Your task to perform on an android device: Go to accessibility settings Image 0: 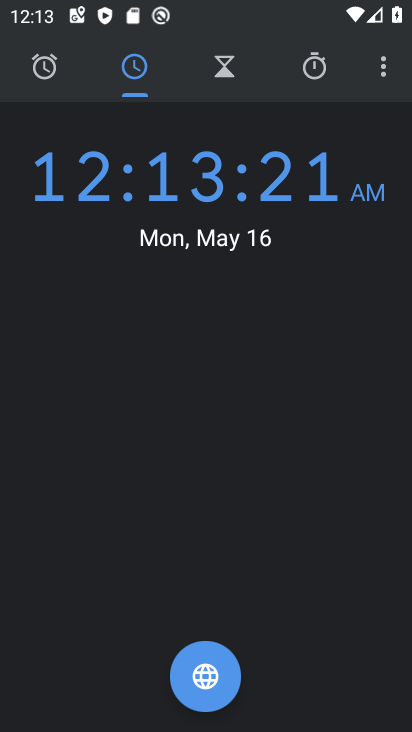
Step 0: press home button
Your task to perform on an android device: Go to accessibility settings Image 1: 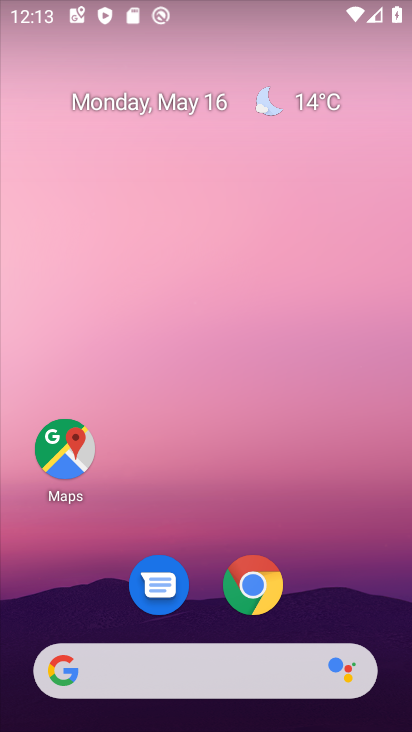
Step 1: drag from (210, 481) to (211, 61)
Your task to perform on an android device: Go to accessibility settings Image 2: 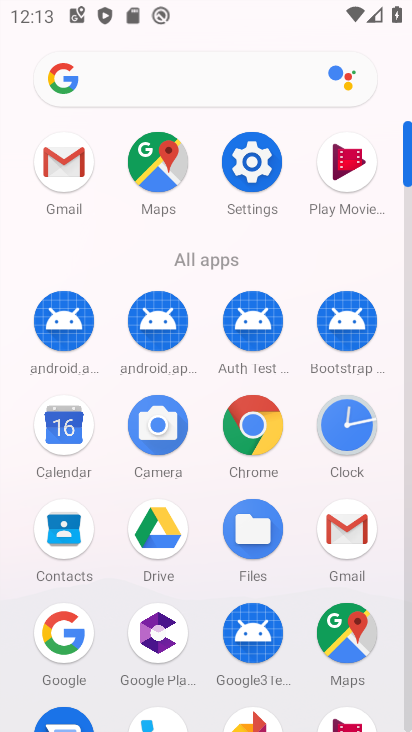
Step 2: click (242, 162)
Your task to perform on an android device: Go to accessibility settings Image 3: 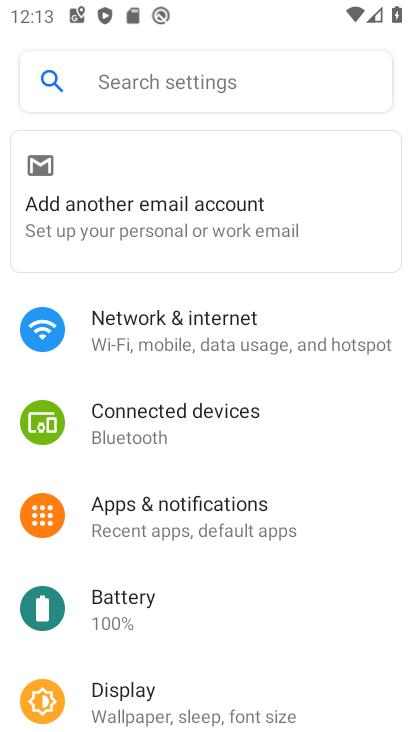
Step 3: drag from (250, 592) to (233, 126)
Your task to perform on an android device: Go to accessibility settings Image 4: 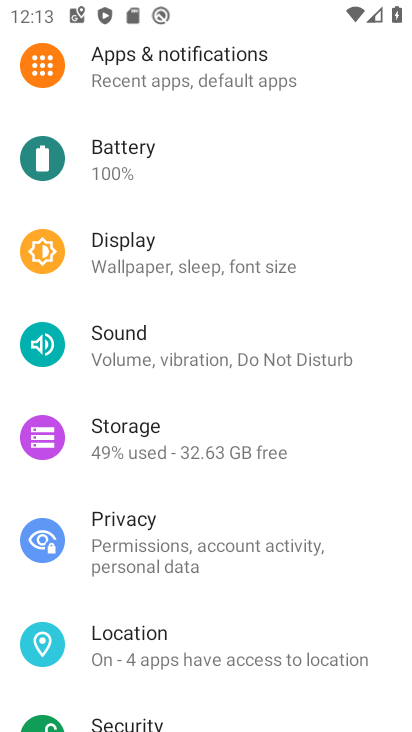
Step 4: drag from (234, 607) to (198, 114)
Your task to perform on an android device: Go to accessibility settings Image 5: 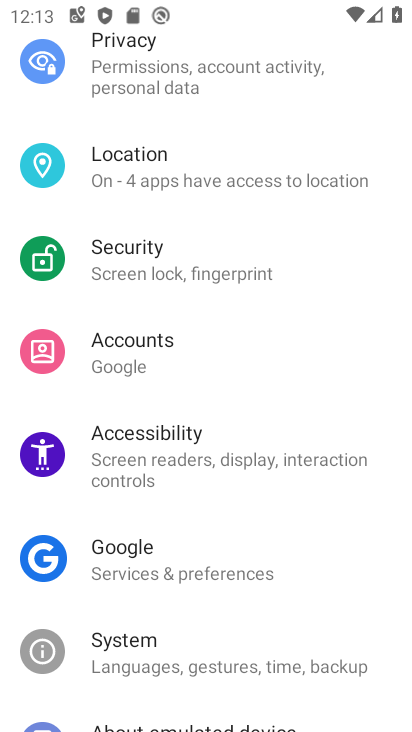
Step 5: click (214, 455)
Your task to perform on an android device: Go to accessibility settings Image 6: 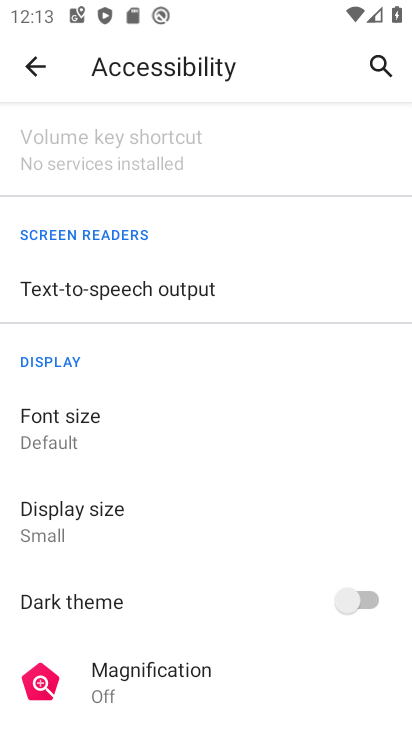
Step 6: task complete